Your task to perform on an android device: visit the assistant section in the google photos Image 0: 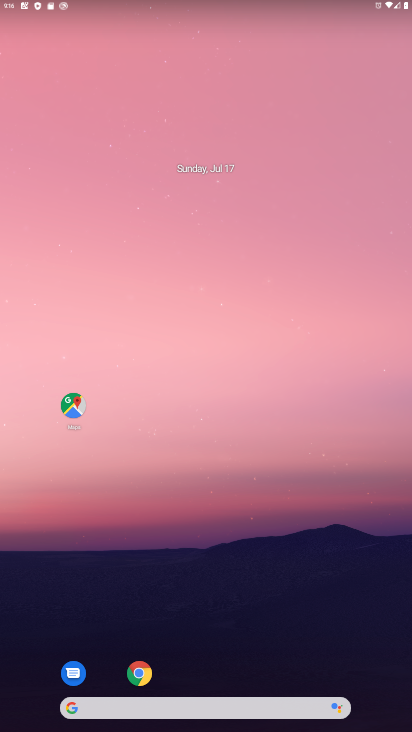
Step 0: drag from (342, 686) to (228, 79)
Your task to perform on an android device: visit the assistant section in the google photos Image 1: 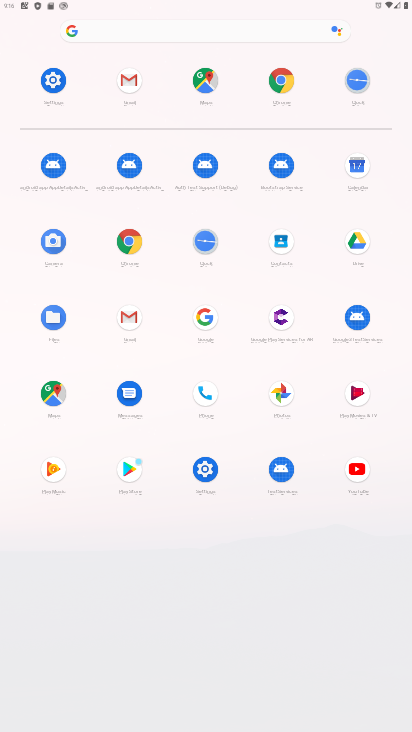
Step 1: click (277, 392)
Your task to perform on an android device: visit the assistant section in the google photos Image 2: 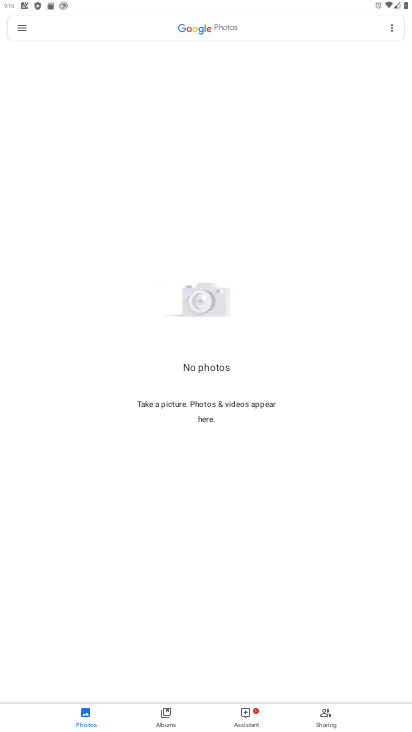
Step 2: click (244, 708)
Your task to perform on an android device: visit the assistant section in the google photos Image 3: 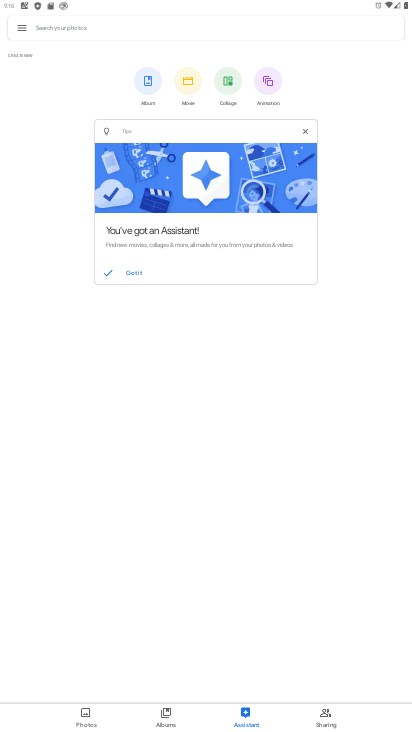
Step 3: task complete